Your task to perform on an android device: Go to Google maps Image 0: 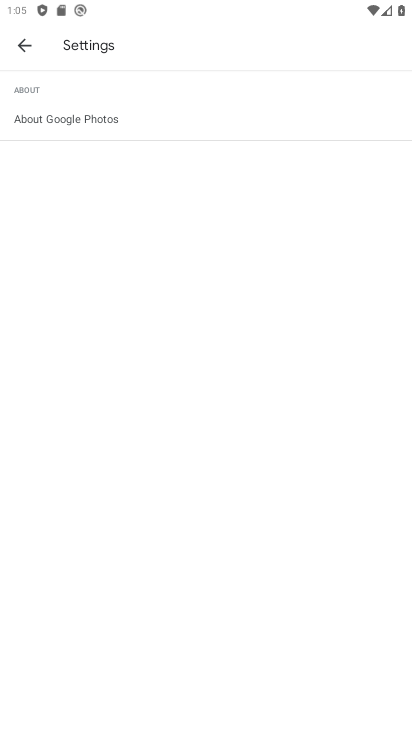
Step 0: press home button
Your task to perform on an android device: Go to Google maps Image 1: 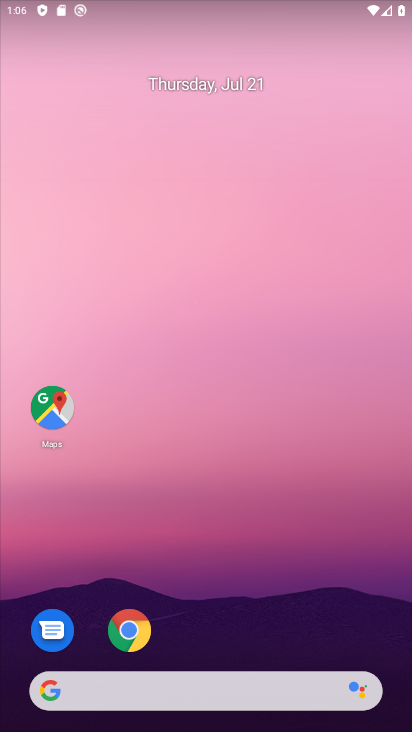
Step 1: click (55, 399)
Your task to perform on an android device: Go to Google maps Image 2: 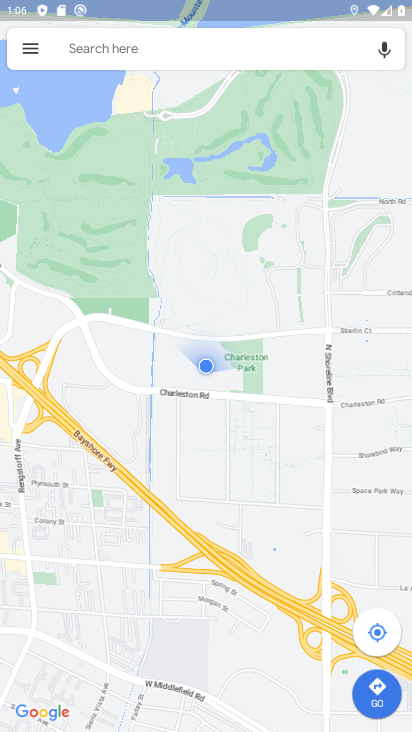
Step 2: task complete